Your task to perform on an android device: Open the calendar and show me this week's events Image 0: 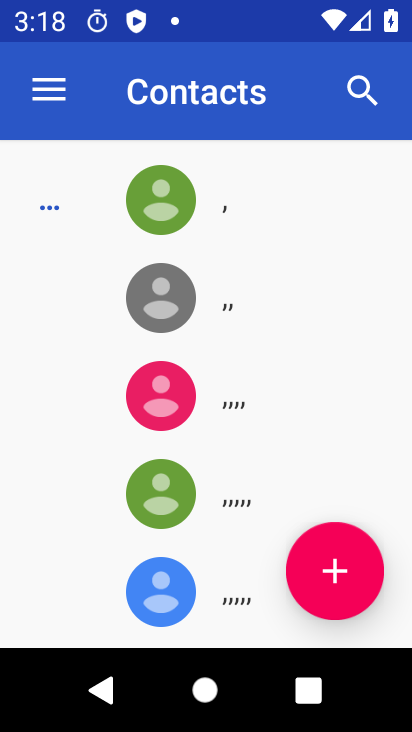
Step 0: press home button
Your task to perform on an android device: Open the calendar and show me this week's events Image 1: 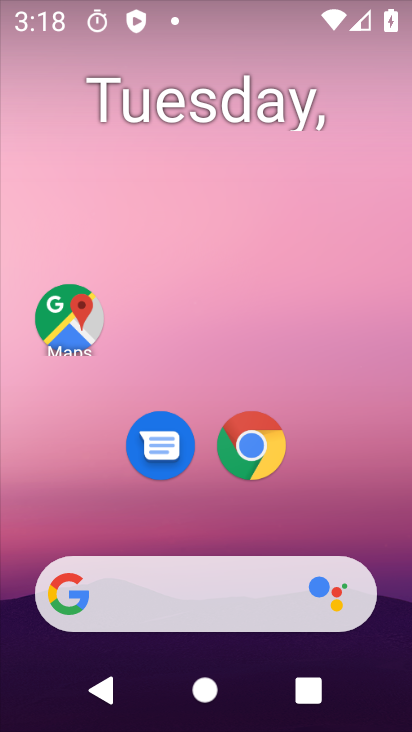
Step 1: drag from (191, 519) to (119, 47)
Your task to perform on an android device: Open the calendar and show me this week's events Image 2: 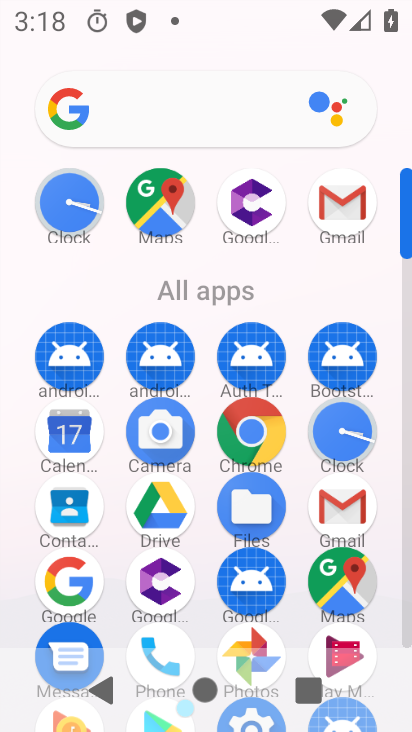
Step 2: click (77, 448)
Your task to perform on an android device: Open the calendar and show me this week's events Image 3: 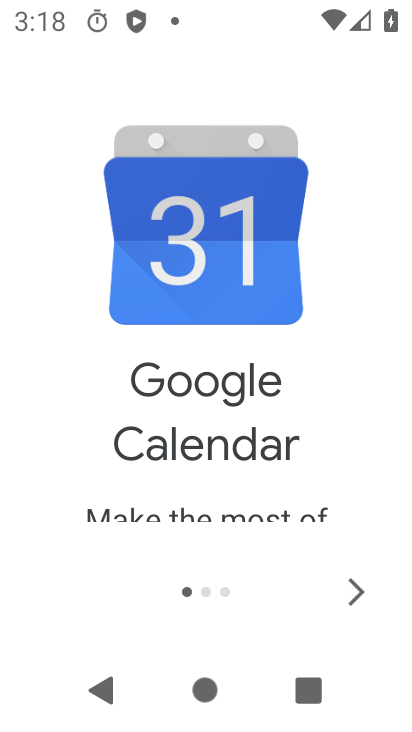
Step 3: click (302, 596)
Your task to perform on an android device: Open the calendar and show me this week's events Image 4: 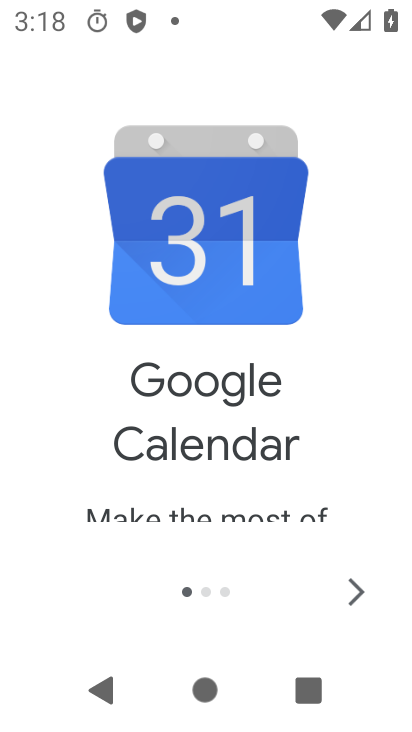
Step 4: click (346, 588)
Your task to perform on an android device: Open the calendar and show me this week's events Image 5: 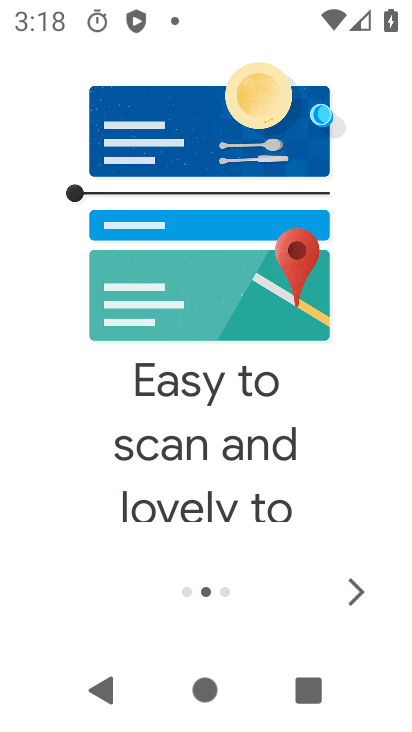
Step 5: click (346, 588)
Your task to perform on an android device: Open the calendar and show me this week's events Image 6: 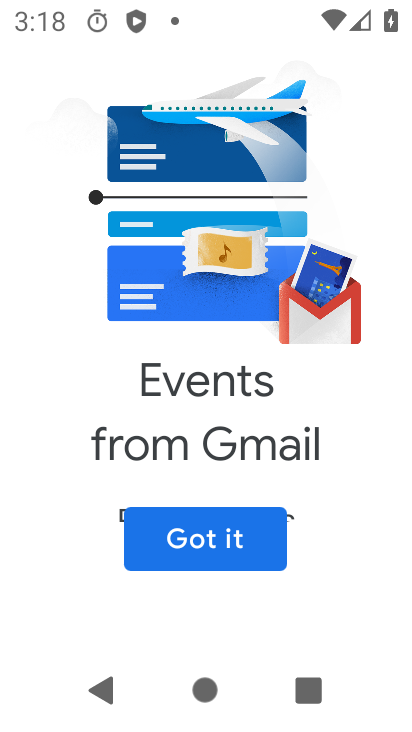
Step 6: click (346, 588)
Your task to perform on an android device: Open the calendar and show me this week's events Image 7: 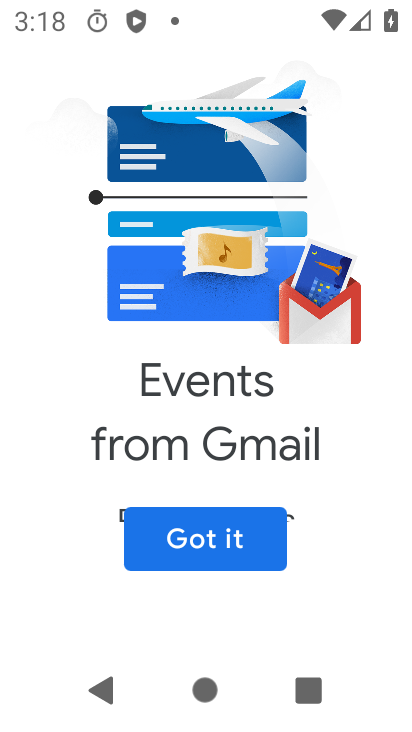
Step 7: click (286, 552)
Your task to perform on an android device: Open the calendar and show me this week's events Image 8: 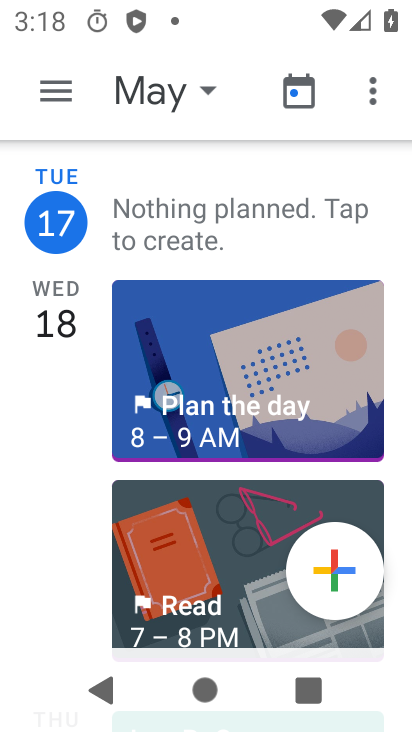
Step 8: click (65, 97)
Your task to perform on an android device: Open the calendar and show me this week's events Image 9: 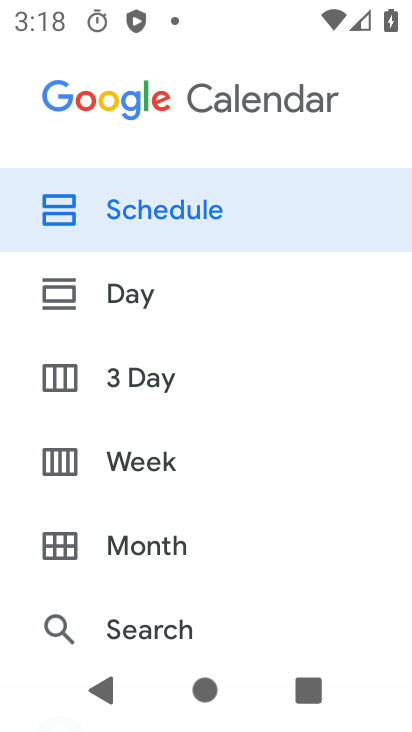
Step 9: click (145, 465)
Your task to perform on an android device: Open the calendar and show me this week's events Image 10: 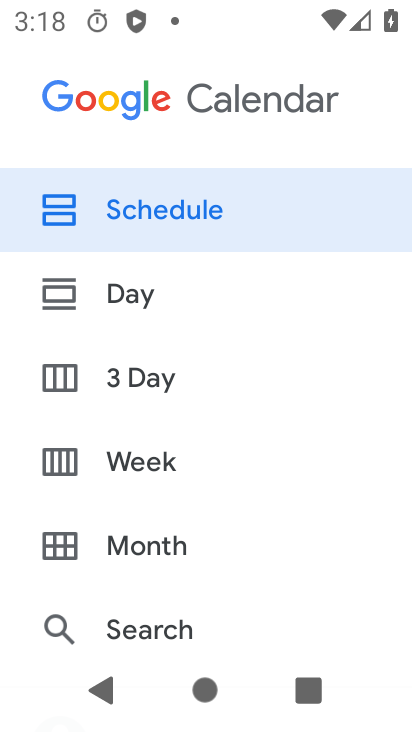
Step 10: click (157, 445)
Your task to perform on an android device: Open the calendar and show me this week's events Image 11: 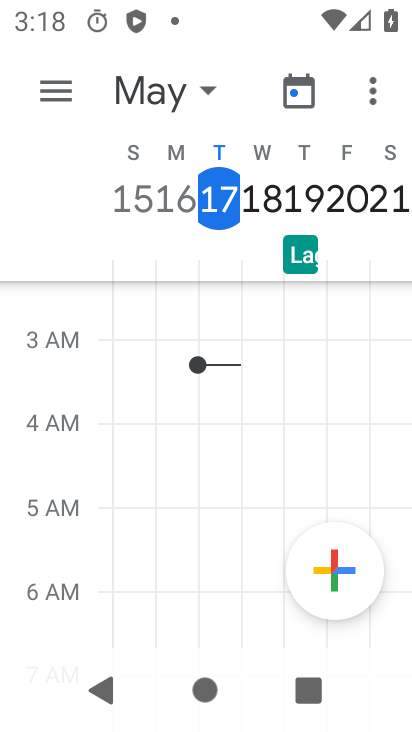
Step 11: task complete